Your task to perform on an android device: open app "Google Play services" Image 0: 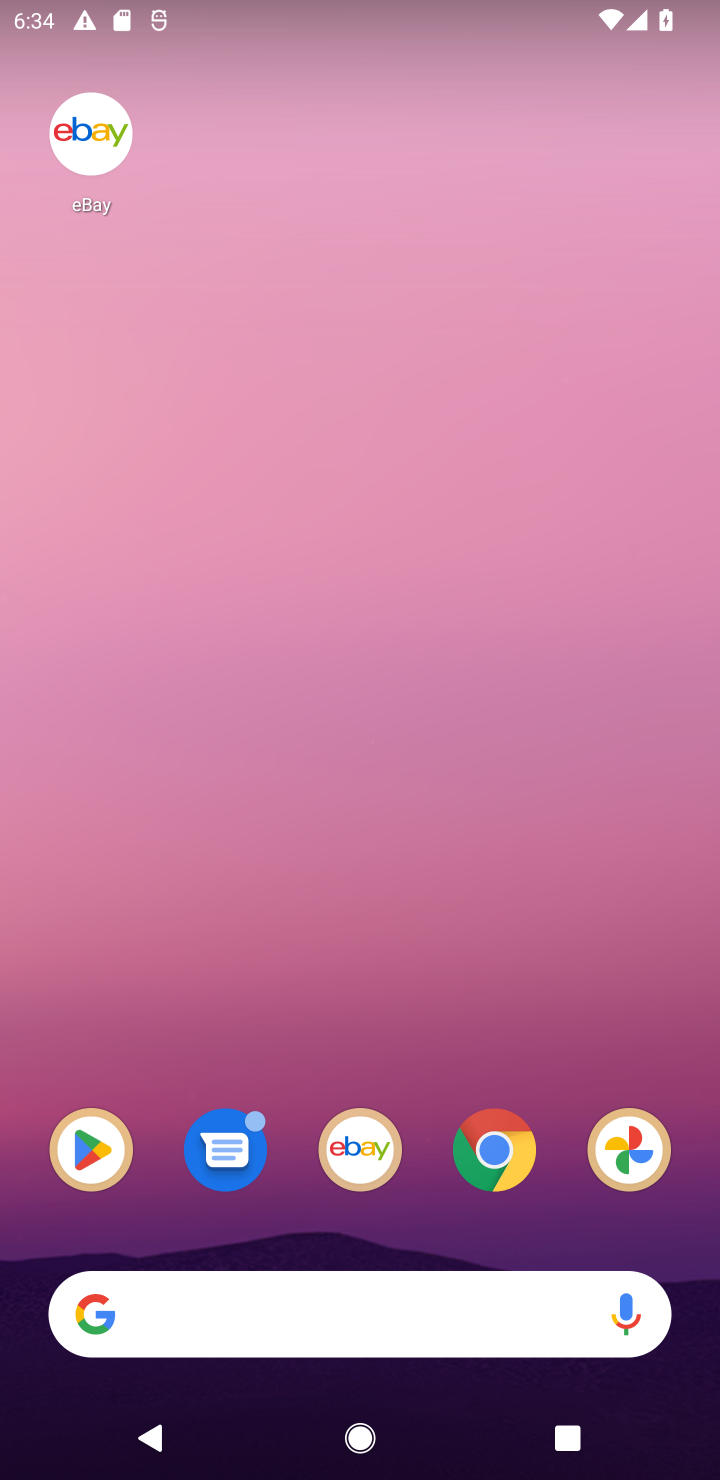
Step 0: drag from (512, 1253) to (429, 196)
Your task to perform on an android device: open app "Google Play services" Image 1: 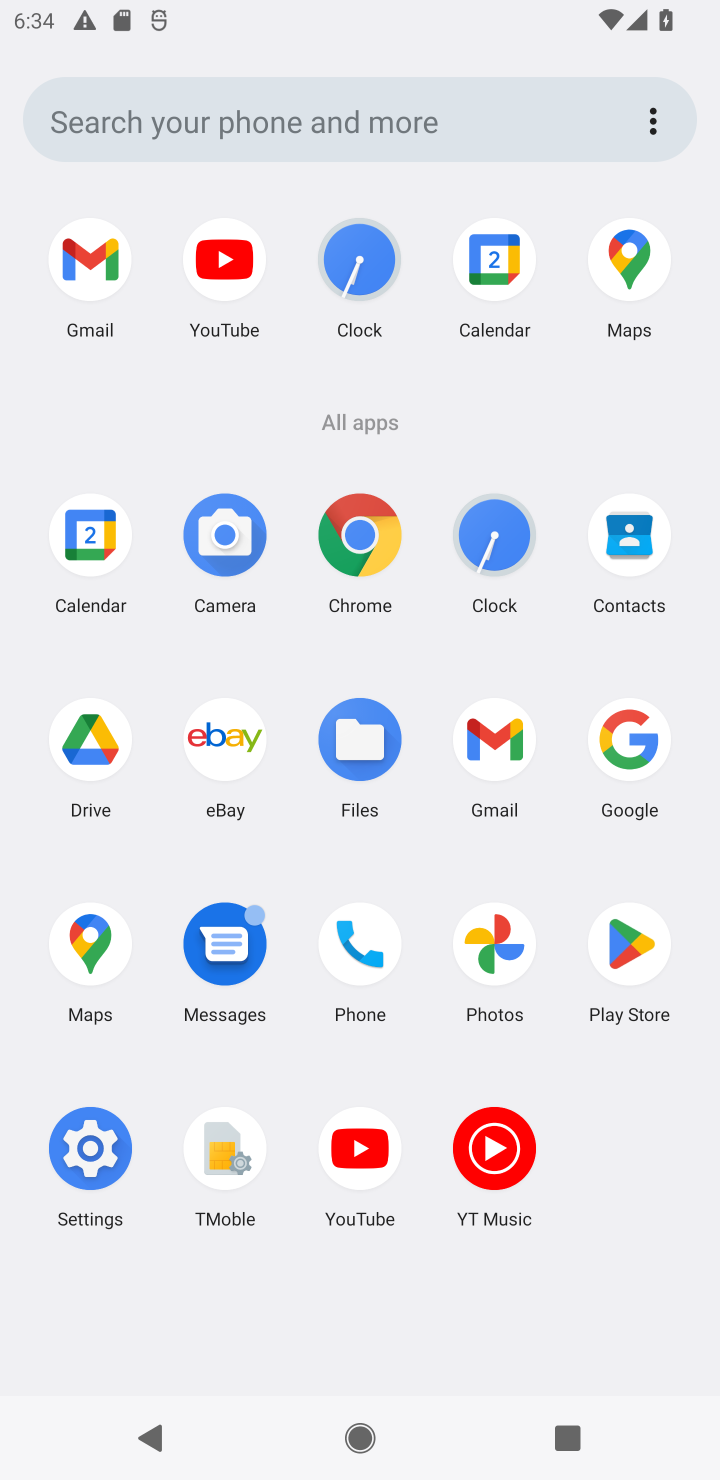
Step 1: click (616, 953)
Your task to perform on an android device: open app "Google Play services" Image 2: 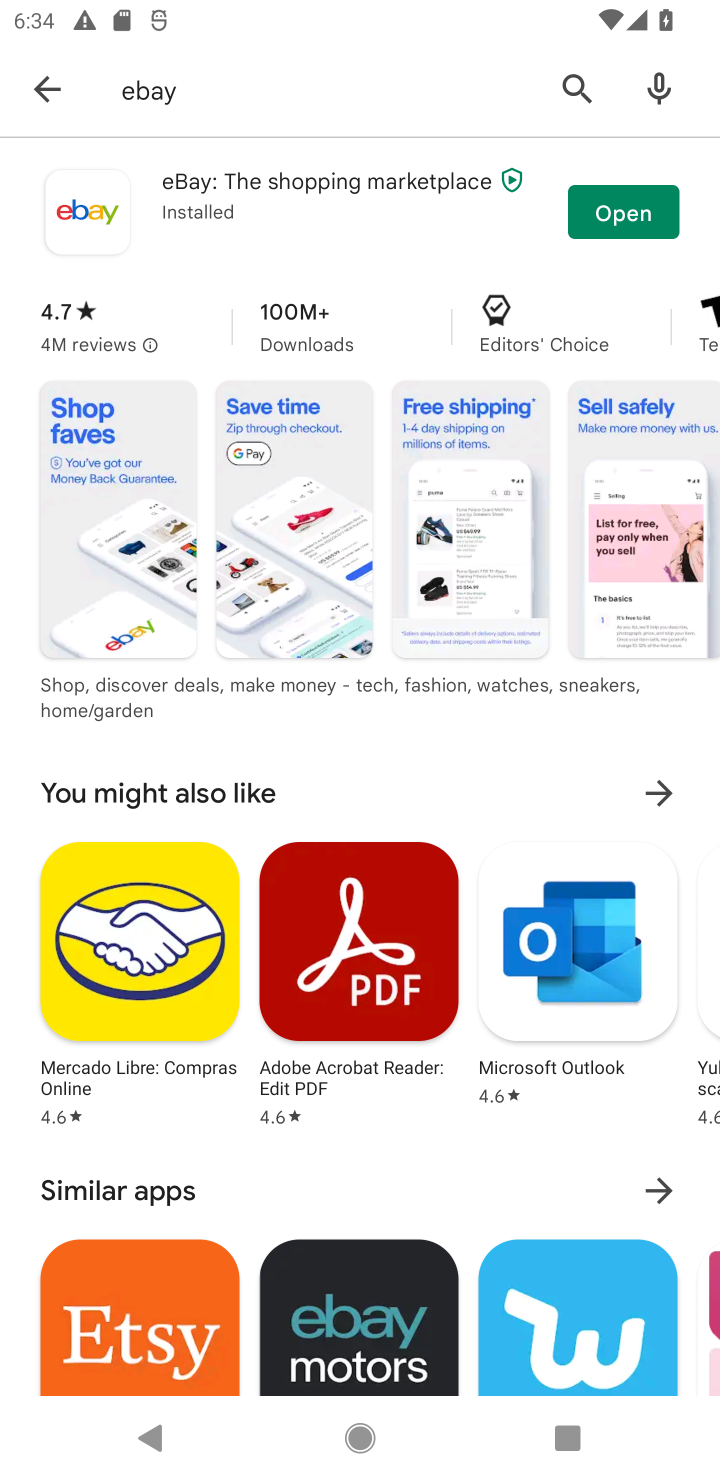
Step 2: click (16, 86)
Your task to perform on an android device: open app "Google Play services" Image 3: 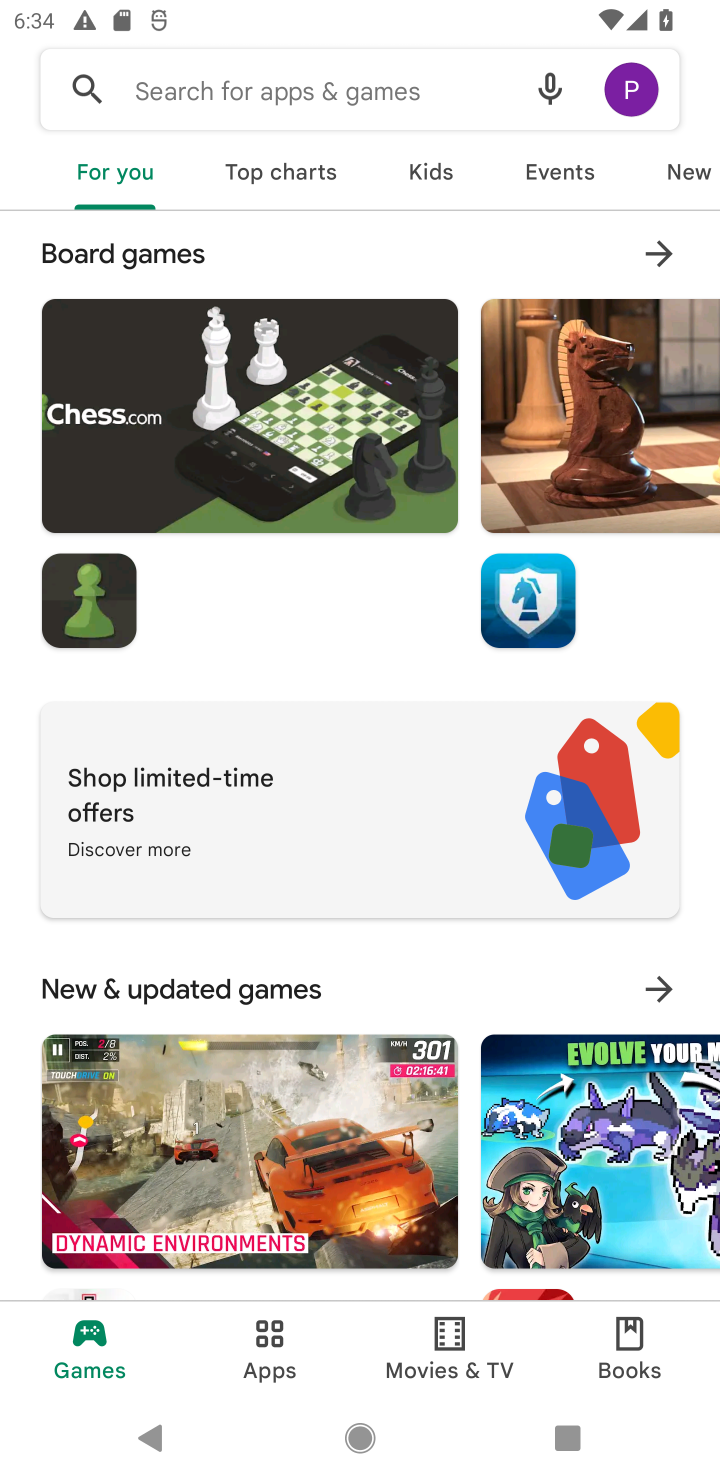
Step 3: click (343, 109)
Your task to perform on an android device: open app "Google Play services" Image 4: 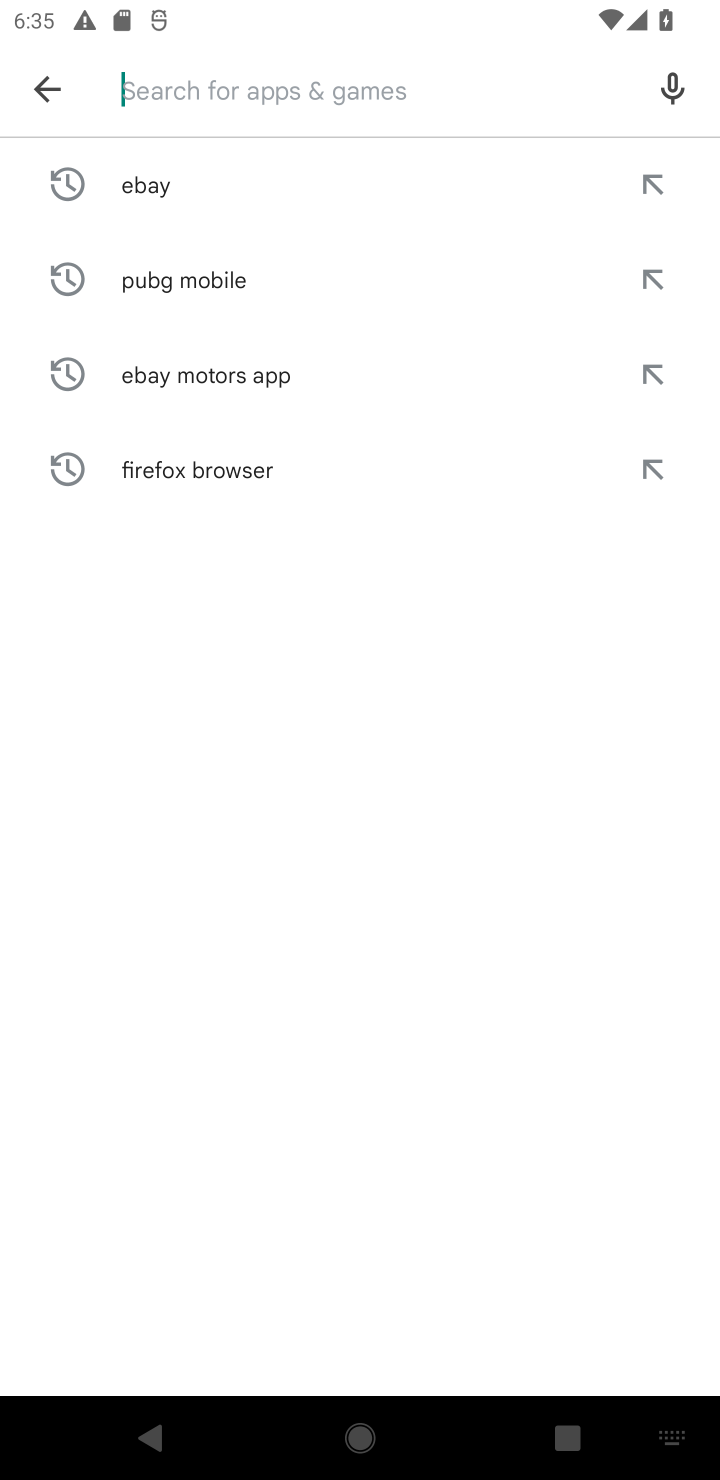
Step 4: type "Google Play services"
Your task to perform on an android device: open app "Google Play services" Image 5: 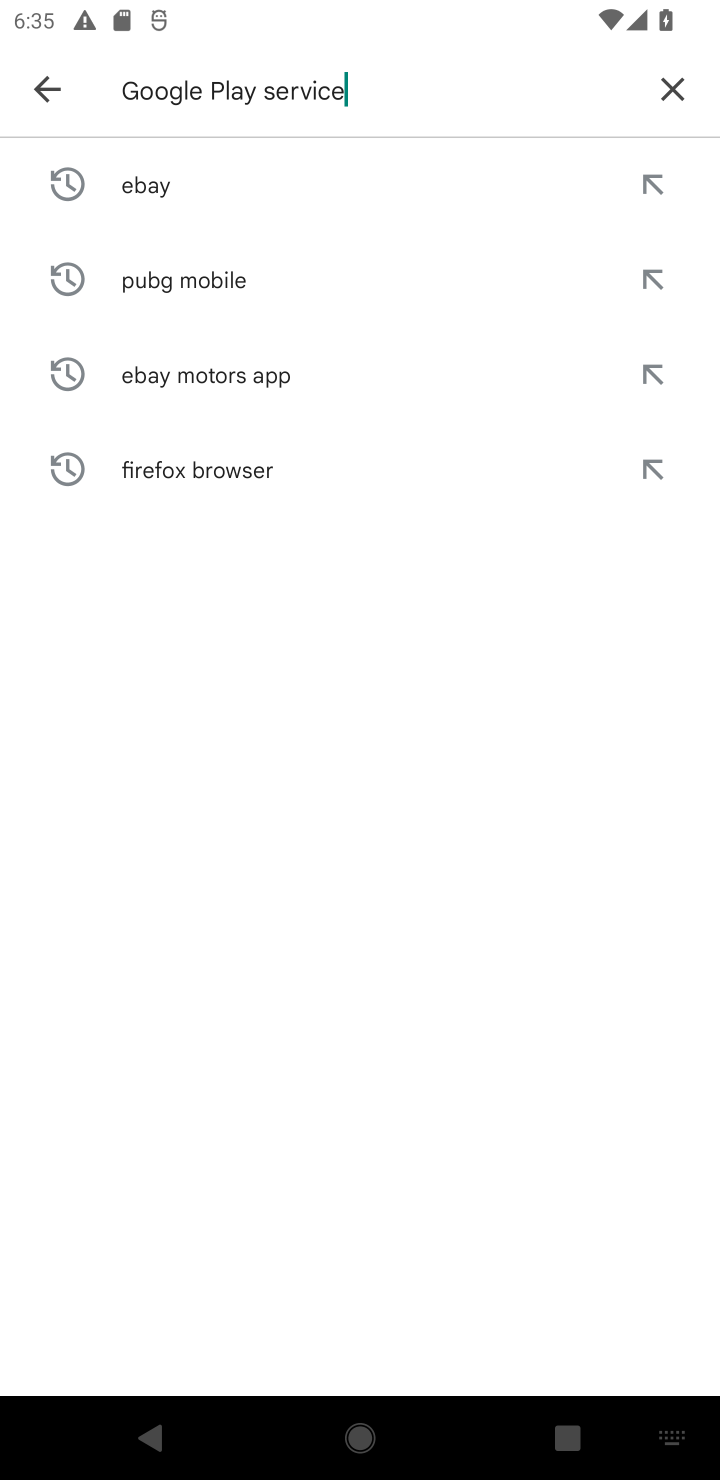
Step 5: type ""
Your task to perform on an android device: open app "Google Play services" Image 6: 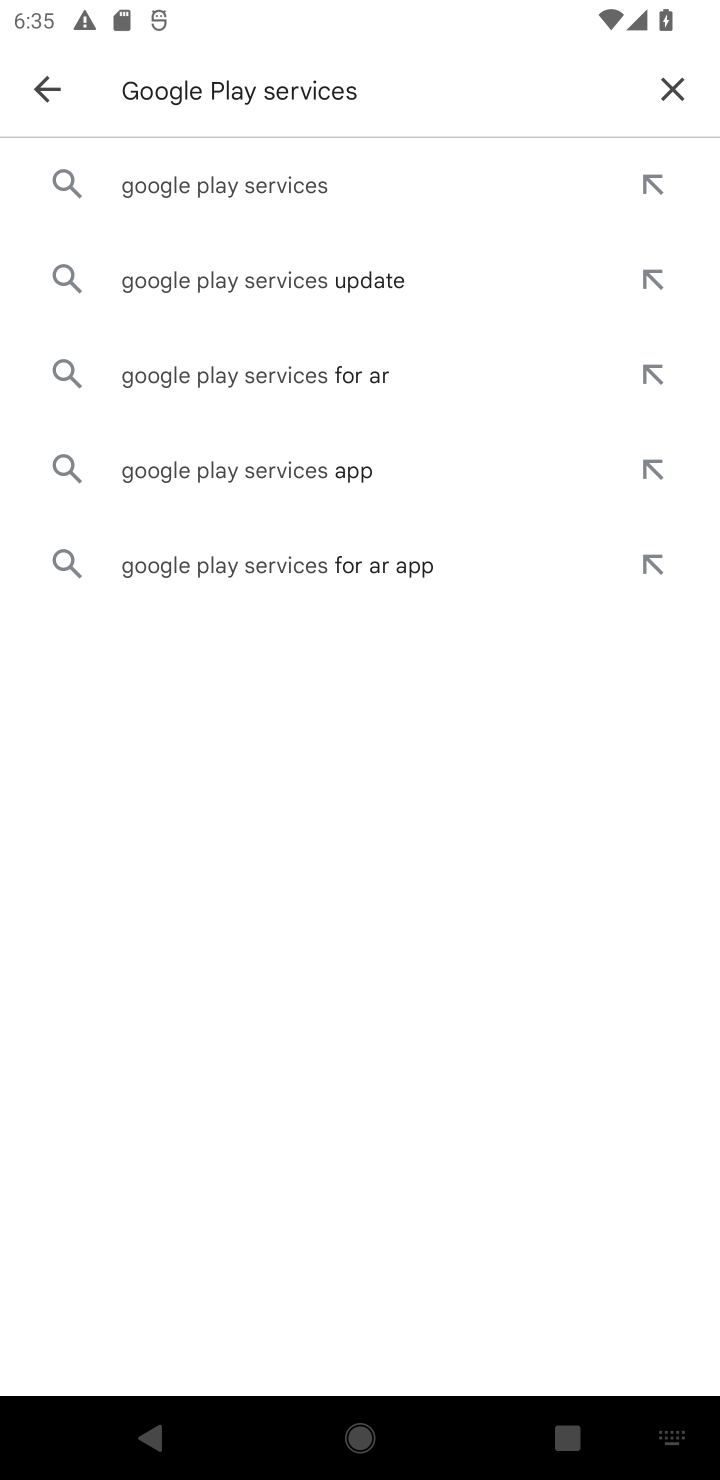
Step 6: click (212, 179)
Your task to perform on an android device: open app "Google Play services" Image 7: 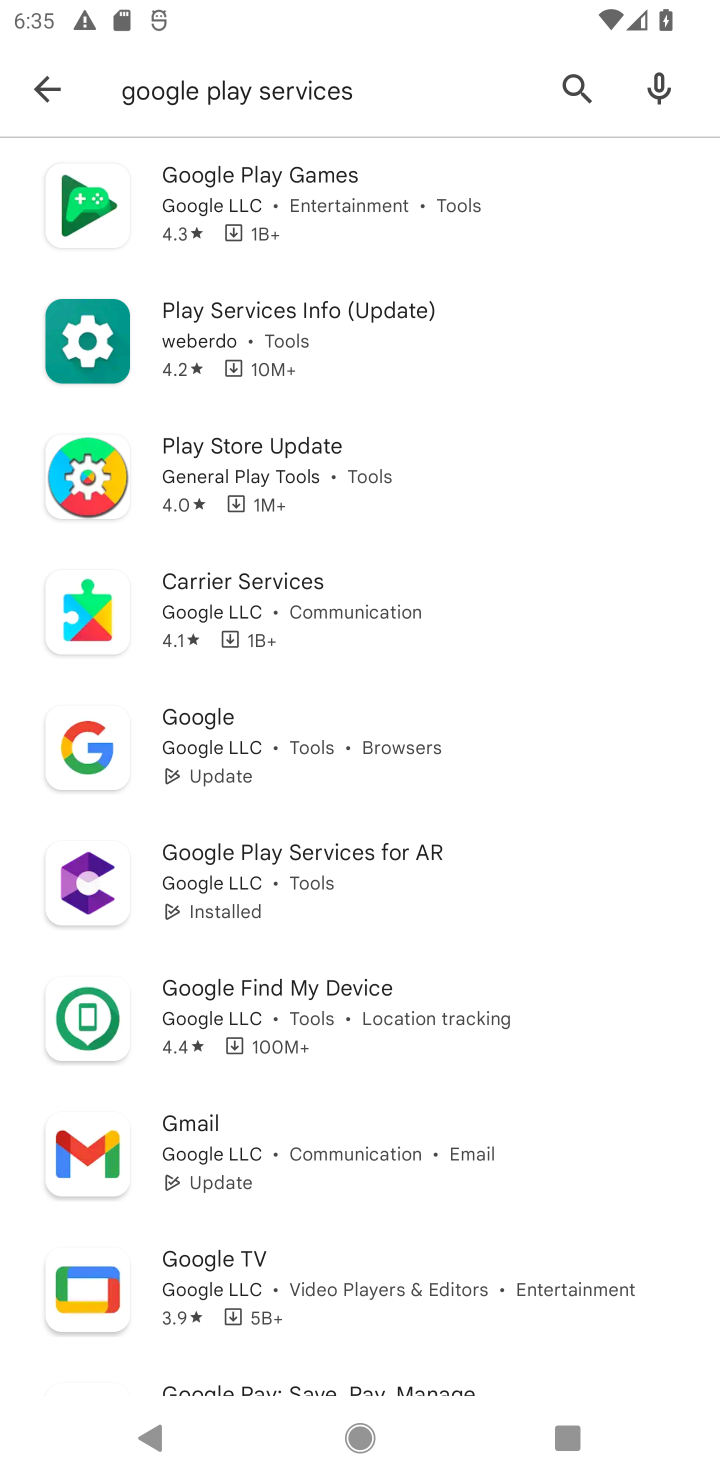
Step 7: click (209, 222)
Your task to perform on an android device: open app "Google Play services" Image 8: 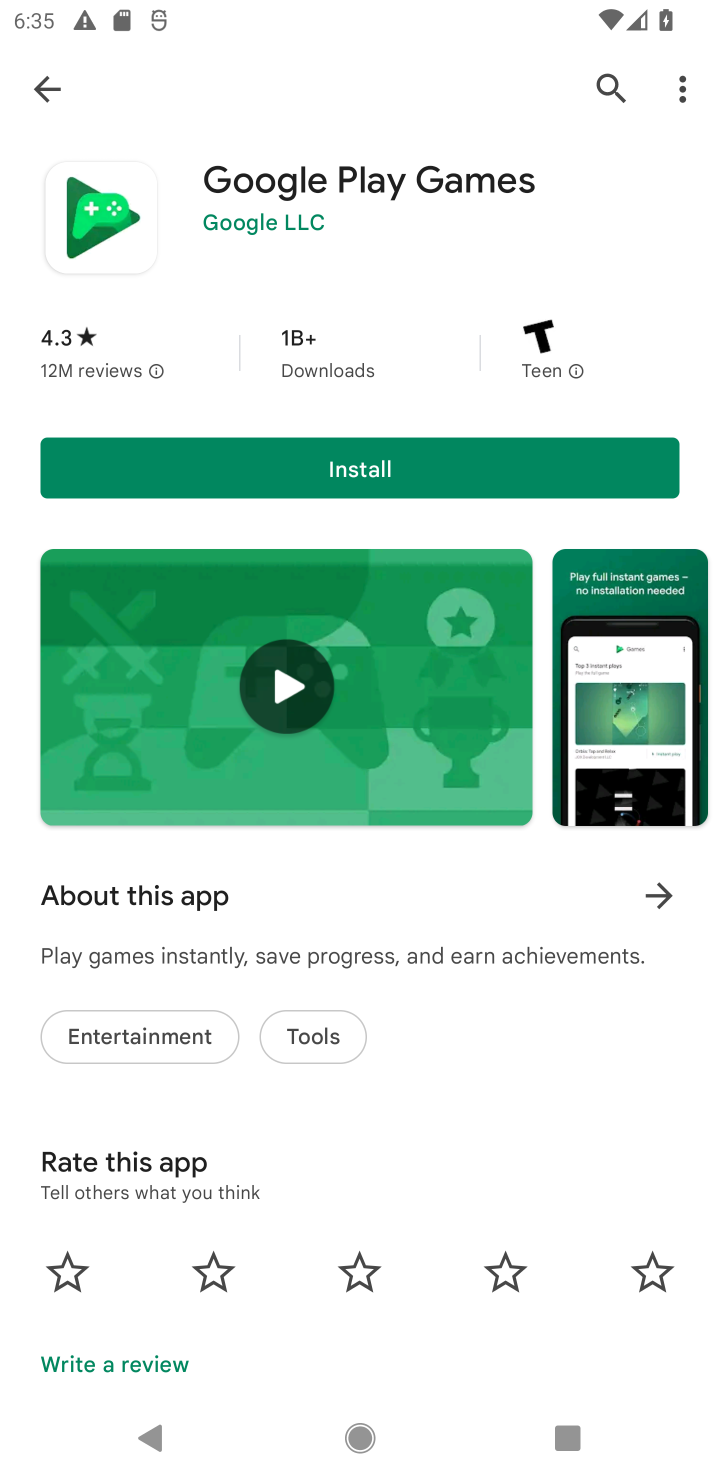
Step 8: click (54, 90)
Your task to perform on an android device: open app "Google Play services" Image 9: 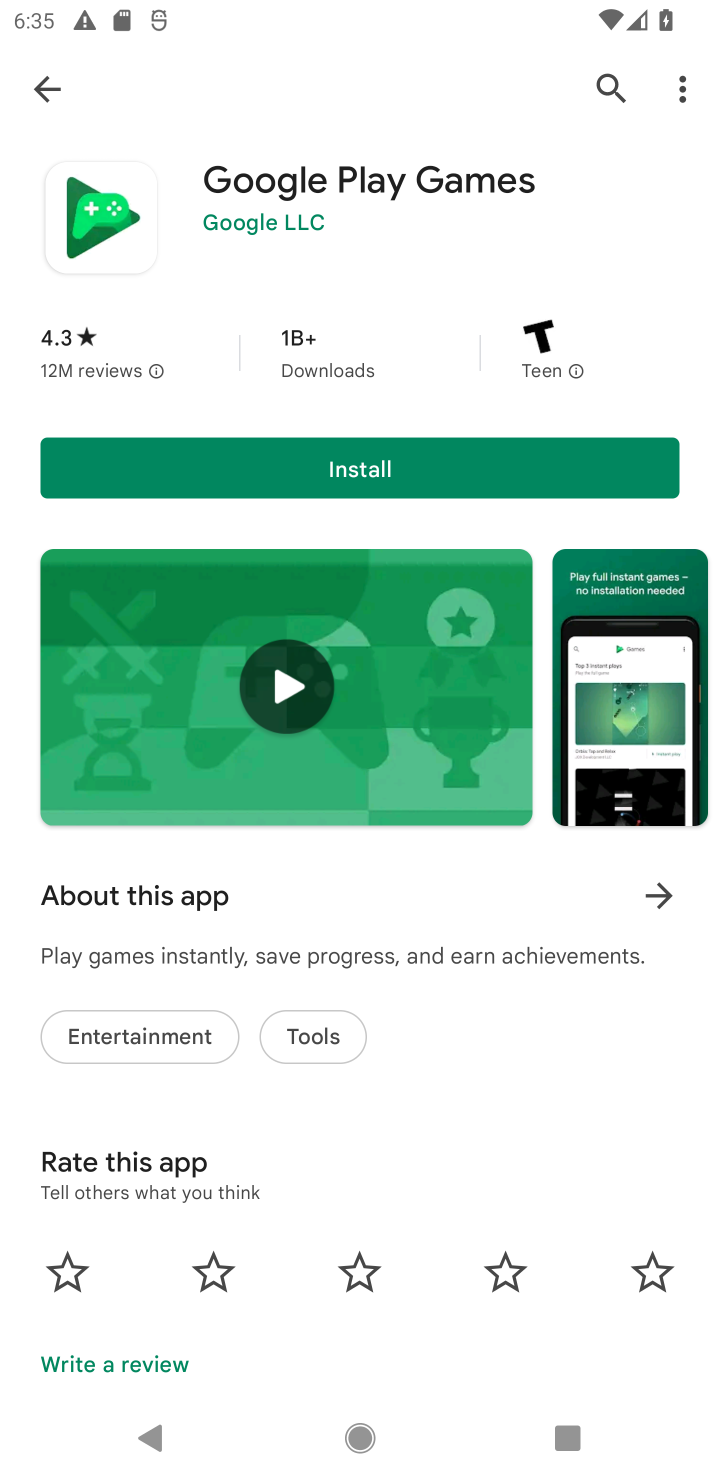
Step 9: click (50, 79)
Your task to perform on an android device: open app "Google Play services" Image 10: 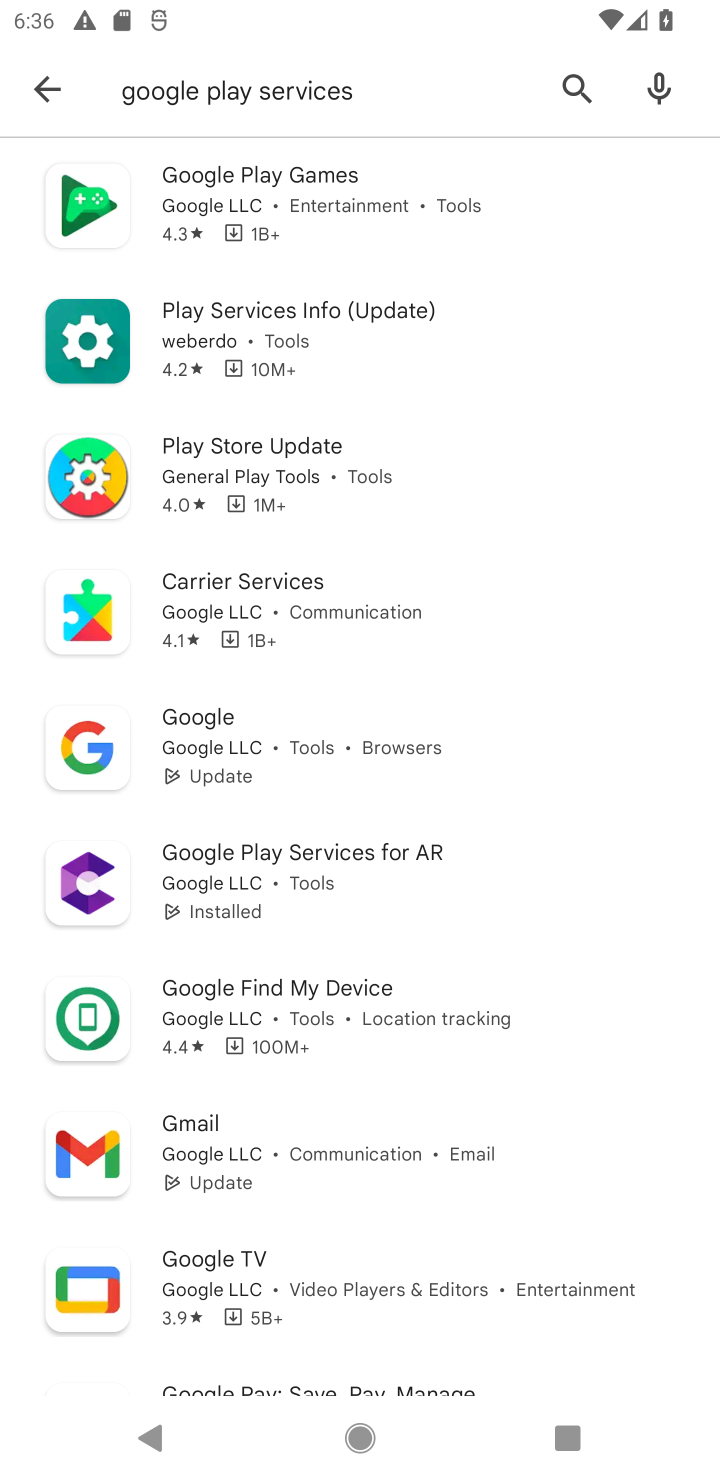
Step 10: task complete